Your task to perform on an android device: Go to eBay Image 0: 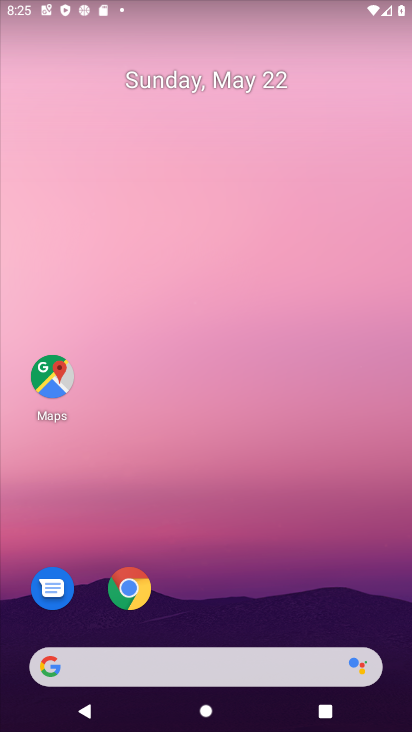
Step 0: click (127, 592)
Your task to perform on an android device: Go to eBay Image 1: 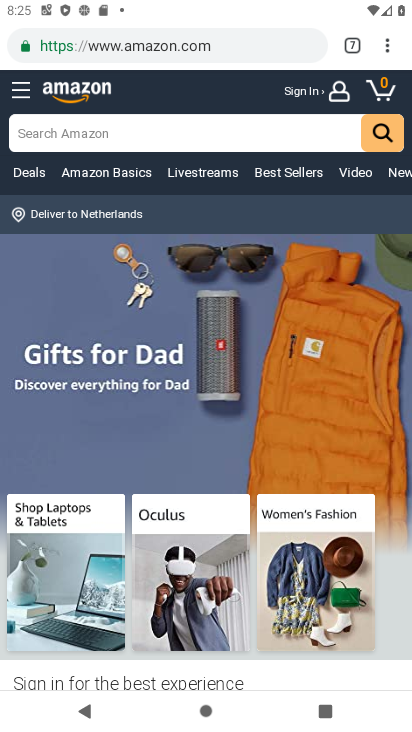
Step 1: click (389, 43)
Your task to perform on an android device: Go to eBay Image 2: 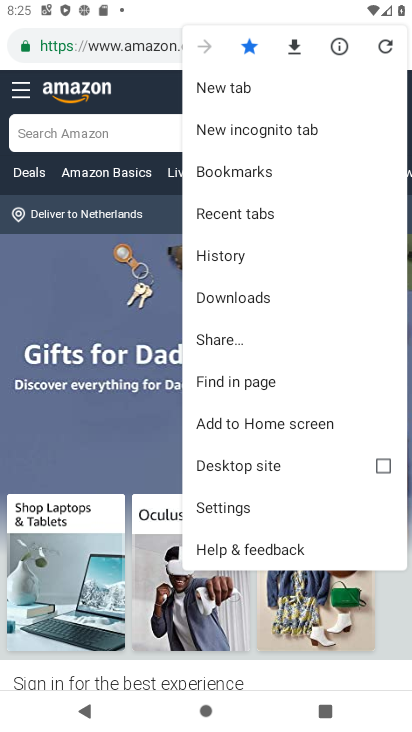
Step 2: click (390, 46)
Your task to perform on an android device: Go to eBay Image 3: 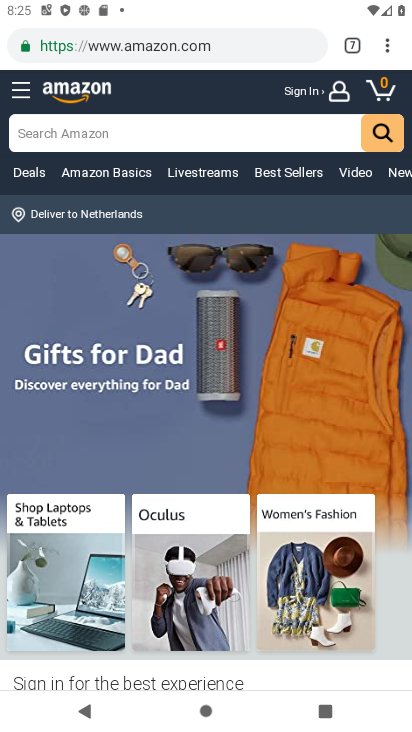
Step 3: click (387, 41)
Your task to perform on an android device: Go to eBay Image 4: 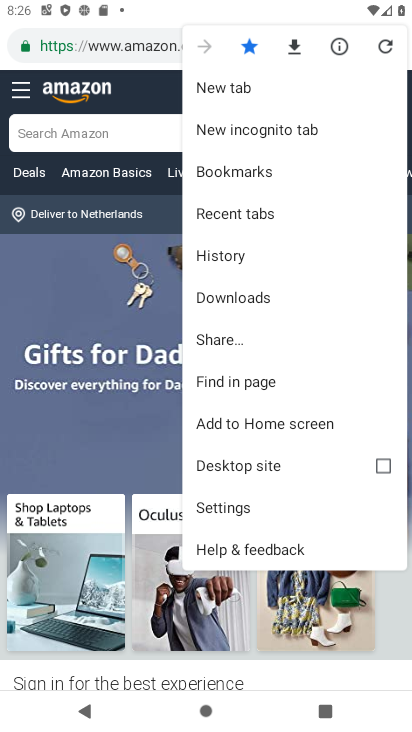
Step 4: click (244, 96)
Your task to perform on an android device: Go to eBay Image 5: 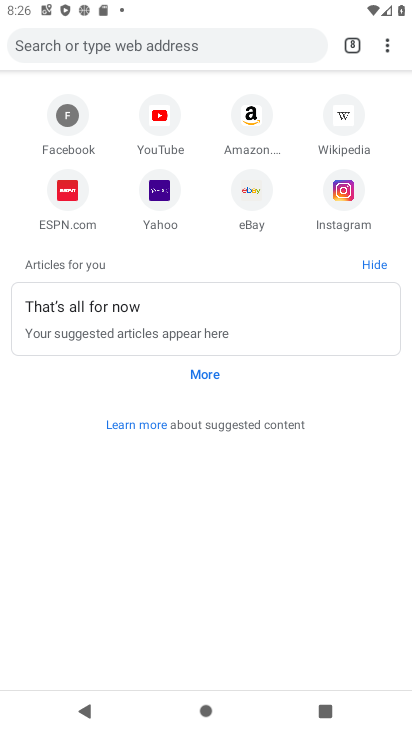
Step 5: click (242, 210)
Your task to perform on an android device: Go to eBay Image 6: 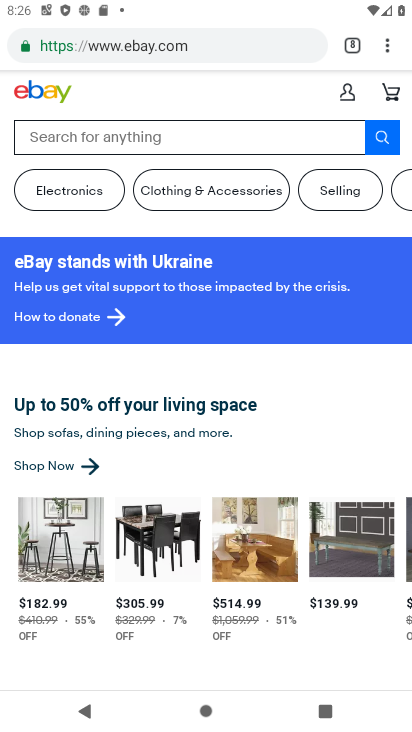
Step 6: task complete